Your task to perform on an android device: find snoozed emails in the gmail app Image 0: 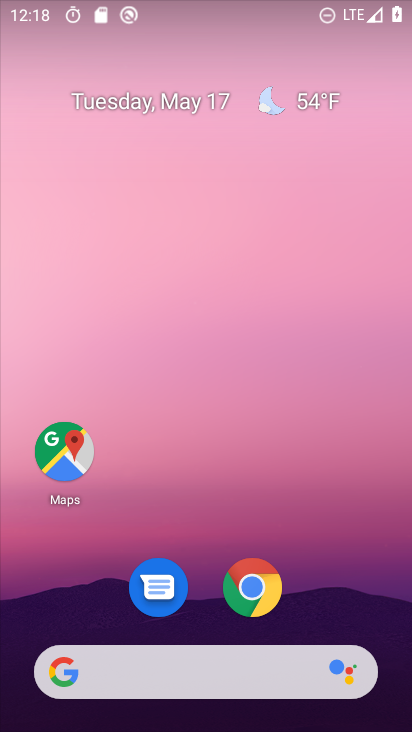
Step 0: drag from (203, 574) to (273, 166)
Your task to perform on an android device: find snoozed emails in the gmail app Image 1: 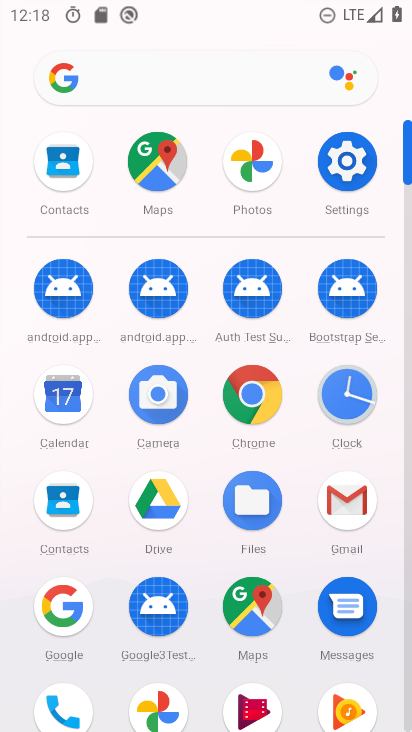
Step 1: click (250, 386)
Your task to perform on an android device: find snoozed emails in the gmail app Image 2: 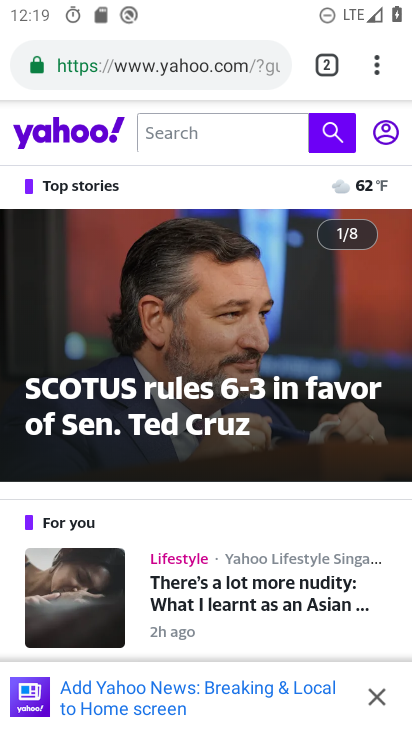
Step 2: drag from (255, 581) to (276, 195)
Your task to perform on an android device: find snoozed emails in the gmail app Image 3: 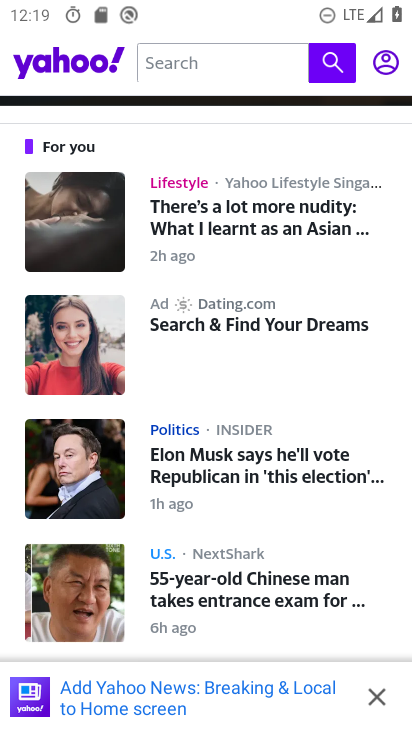
Step 3: drag from (271, 587) to (279, 241)
Your task to perform on an android device: find snoozed emails in the gmail app Image 4: 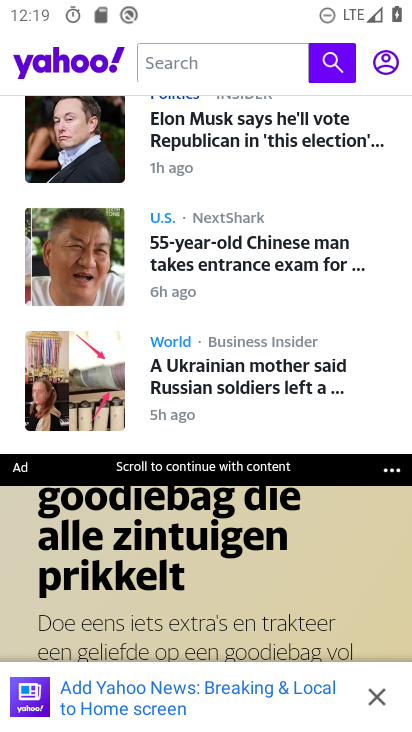
Step 4: drag from (319, 359) to (411, 125)
Your task to perform on an android device: find snoozed emails in the gmail app Image 5: 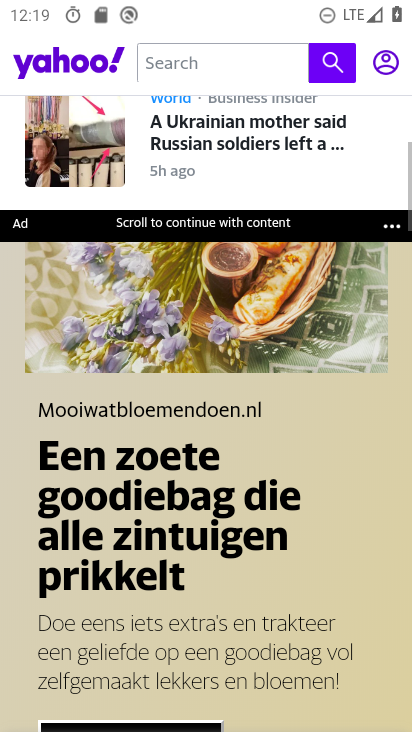
Step 5: click (373, 60)
Your task to perform on an android device: find snoozed emails in the gmail app Image 6: 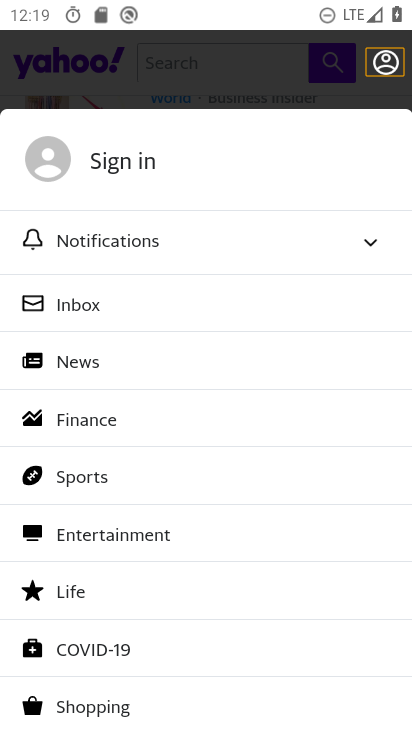
Step 6: click (194, 55)
Your task to perform on an android device: find snoozed emails in the gmail app Image 7: 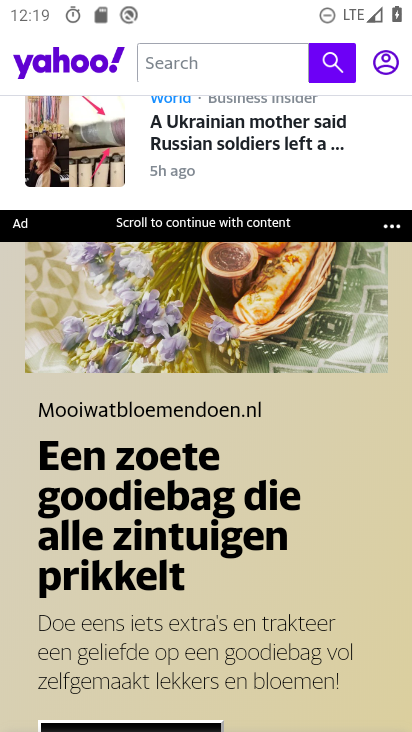
Step 7: drag from (207, 75) to (304, 689)
Your task to perform on an android device: find snoozed emails in the gmail app Image 8: 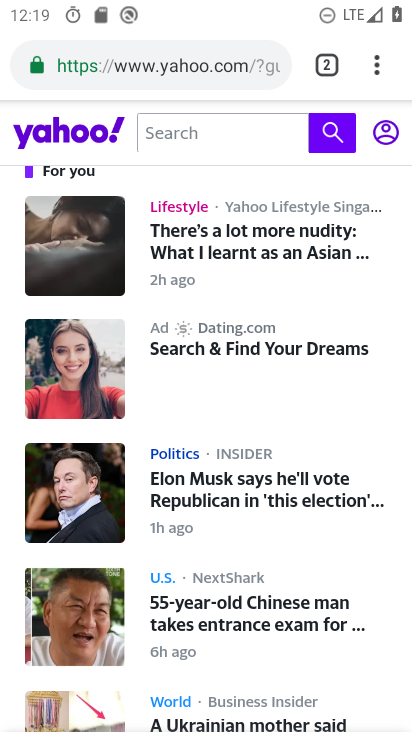
Step 8: click (383, 51)
Your task to perform on an android device: find snoozed emails in the gmail app Image 9: 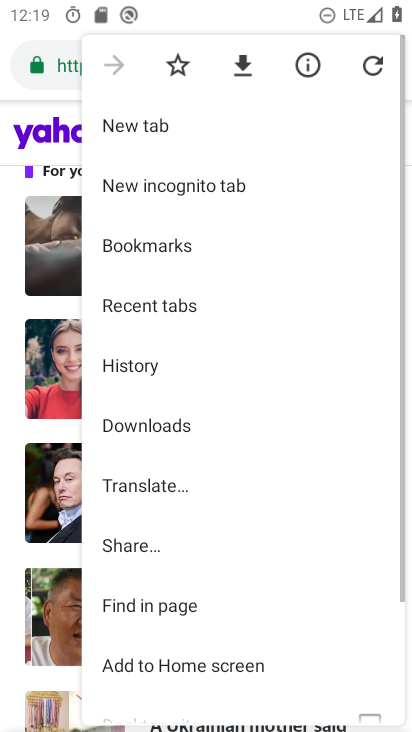
Step 9: drag from (226, 632) to (272, 224)
Your task to perform on an android device: find snoozed emails in the gmail app Image 10: 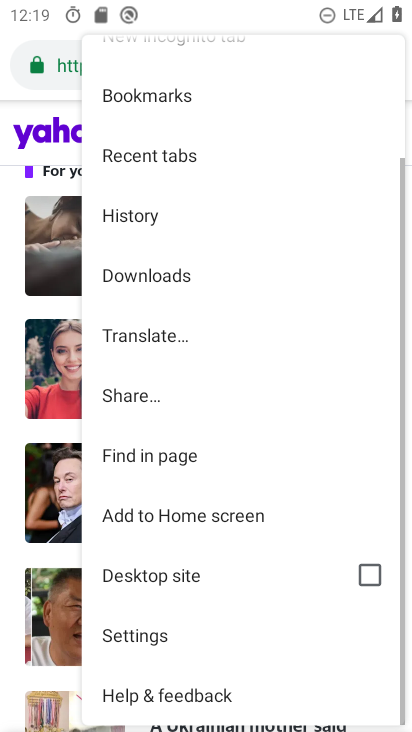
Step 10: click (161, 628)
Your task to perform on an android device: find snoozed emails in the gmail app Image 11: 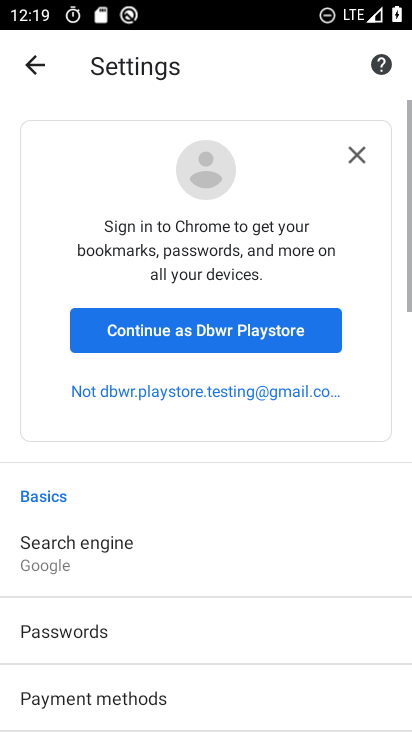
Step 11: drag from (217, 588) to (267, 255)
Your task to perform on an android device: find snoozed emails in the gmail app Image 12: 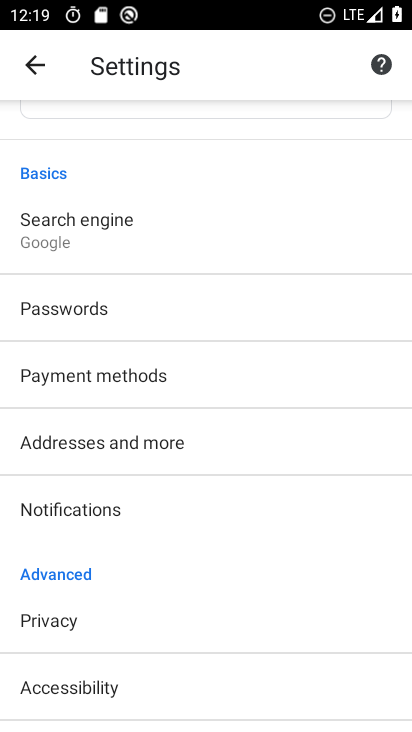
Step 12: drag from (205, 636) to (270, 280)
Your task to perform on an android device: find snoozed emails in the gmail app Image 13: 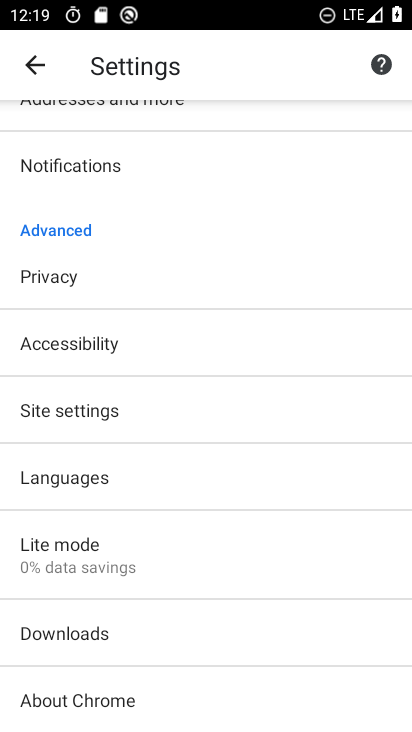
Step 13: drag from (206, 648) to (247, 379)
Your task to perform on an android device: find snoozed emails in the gmail app Image 14: 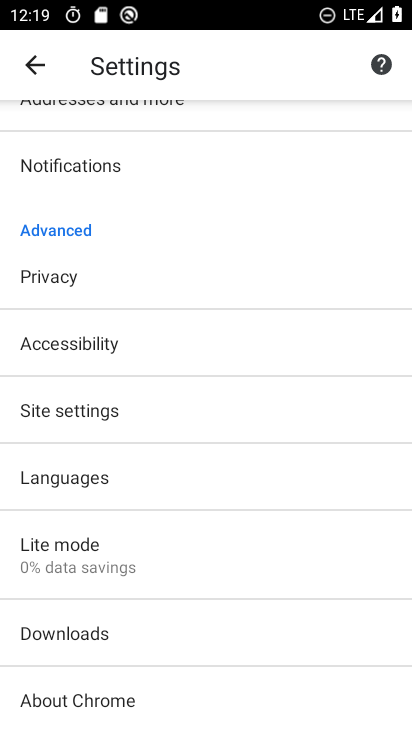
Step 14: click (81, 423)
Your task to perform on an android device: find snoozed emails in the gmail app Image 15: 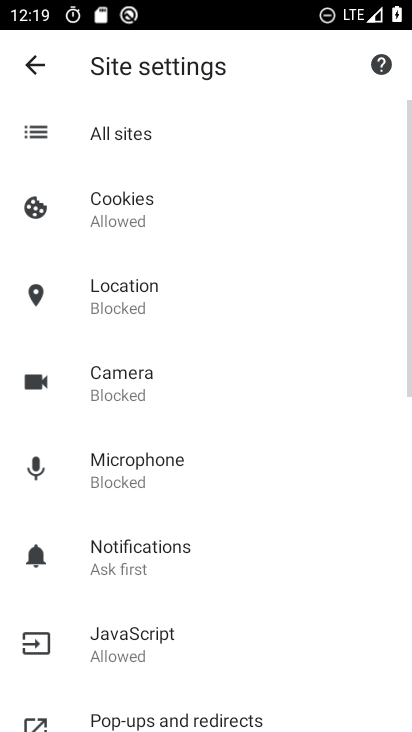
Step 15: drag from (200, 664) to (387, 221)
Your task to perform on an android device: find snoozed emails in the gmail app Image 16: 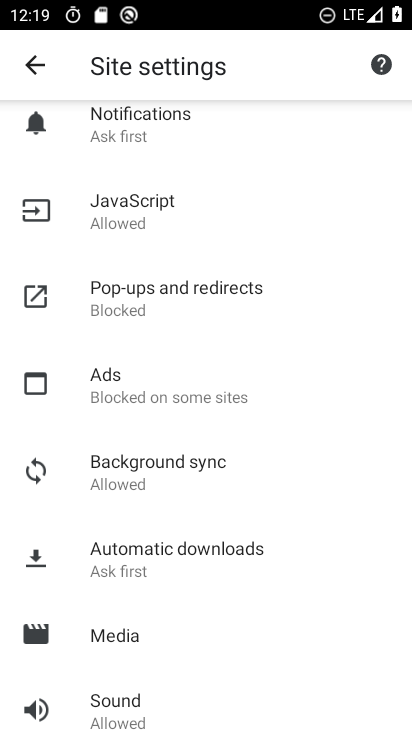
Step 16: drag from (198, 165) to (292, 724)
Your task to perform on an android device: find snoozed emails in the gmail app Image 17: 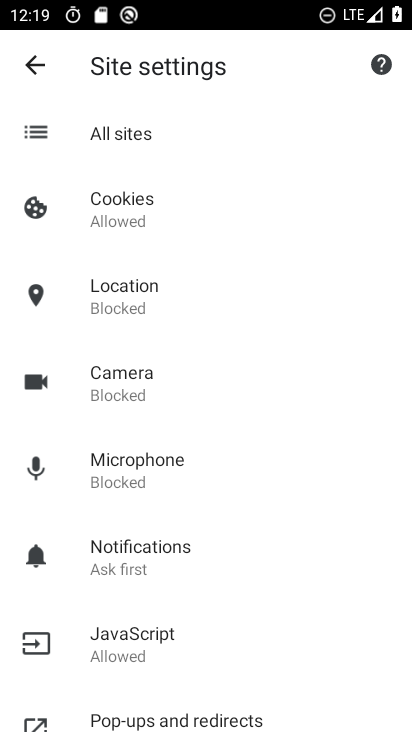
Step 17: drag from (193, 236) to (223, 610)
Your task to perform on an android device: find snoozed emails in the gmail app Image 18: 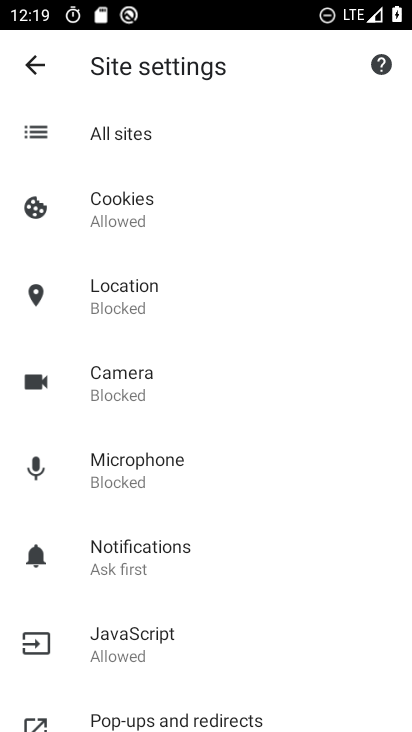
Step 18: drag from (177, 231) to (252, 570)
Your task to perform on an android device: find snoozed emails in the gmail app Image 19: 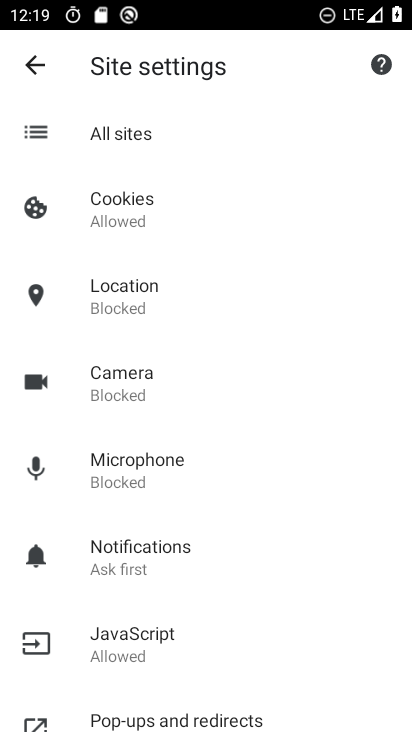
Step 19: click (34, 54)
Your task to perform on an android device: find snoozed emails in the gmail app Image 20: 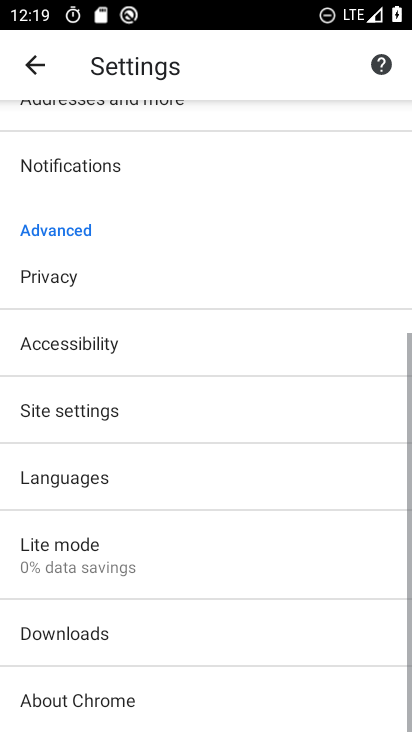
Step 20: press home button
Your task to perform on an android device: find snoozed emails in the gmail app Image 21: 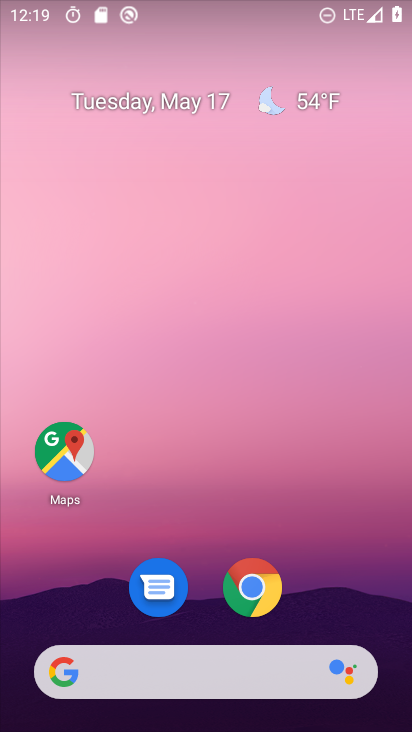
Step 21: drag from (209, 628) to (230, 201)
Your task to perform on an android device: find snoozed emails in the gmail app Image 22: 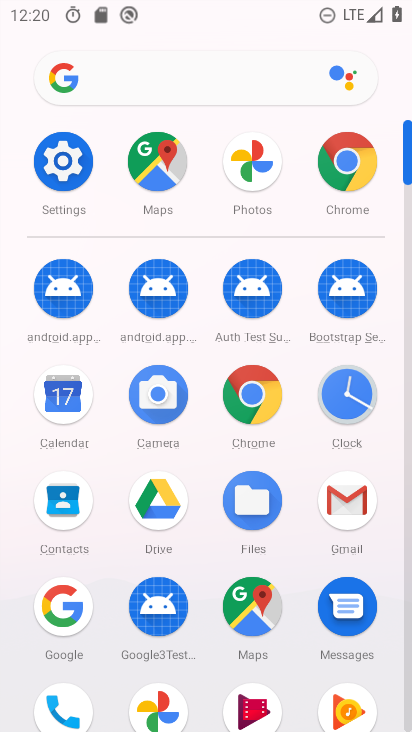
Step 22: click (342, 465)
Your task to perform on an android device: find snoozed emails in the gmail app Image 23: 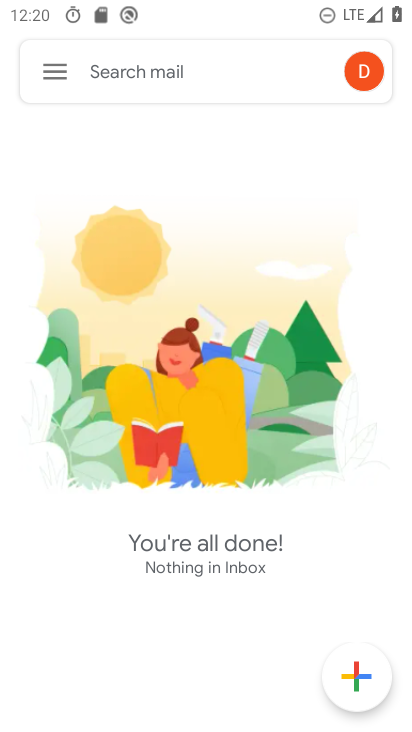
Step 23: click (48, 69)
Your task to perform on an android device: find snoozed emails in the gmail app Image 24: 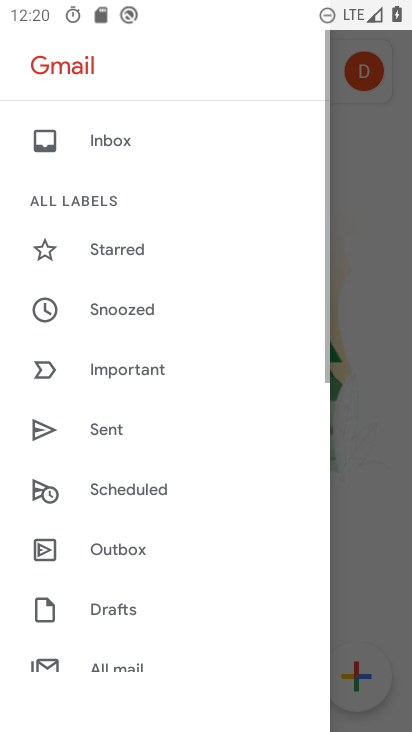
Step 24: drag from (162, 528) to (197, 206)
Your task to perform on an android device: find snoozed emails in the gmail app Image 25: 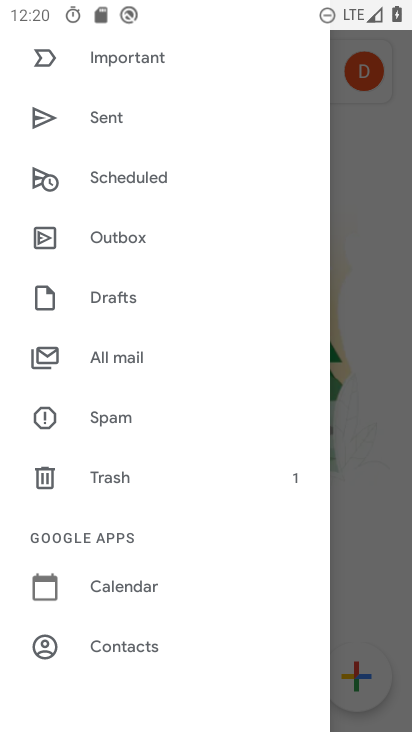
Step 25: drag from (134, 121) to (176, 630)
Your task to perform on an android device: find snoozed emails in the gmail app Image 26: 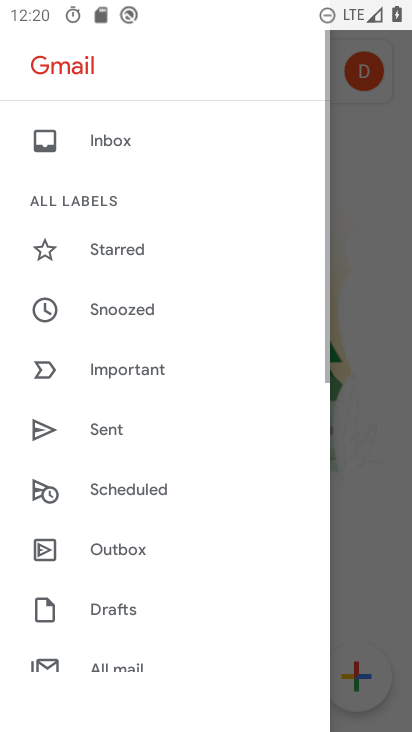
Step 26: click (107, 304)
Your task to perform on an android device: find snoozed emails in the gmail app Image 27: 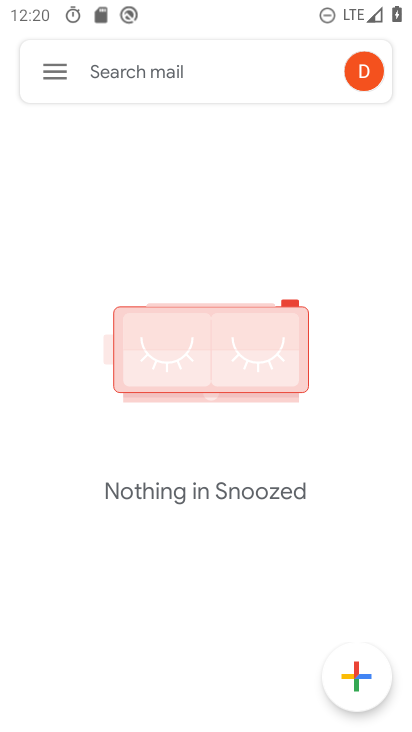
Step 27: drag from (195, 577) to (228, 167)
Your task to perform on an android device: find snoozed emails in the gmail app Image 28: 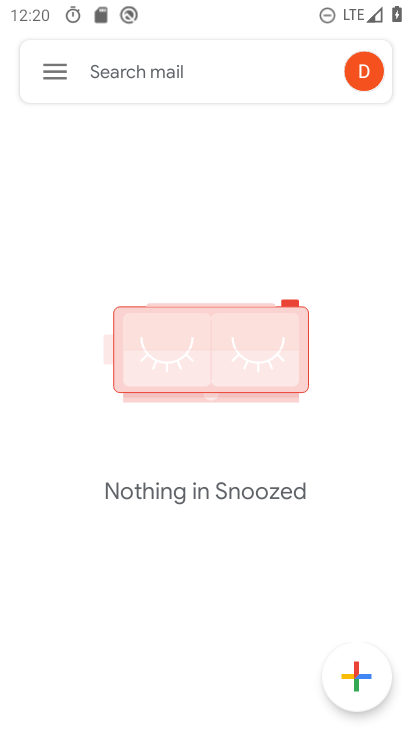
Step 28: drag from (221, 597) to (237, 279)
Your task to perform on an android device: find snoozed emails in the gmail app Image 29: 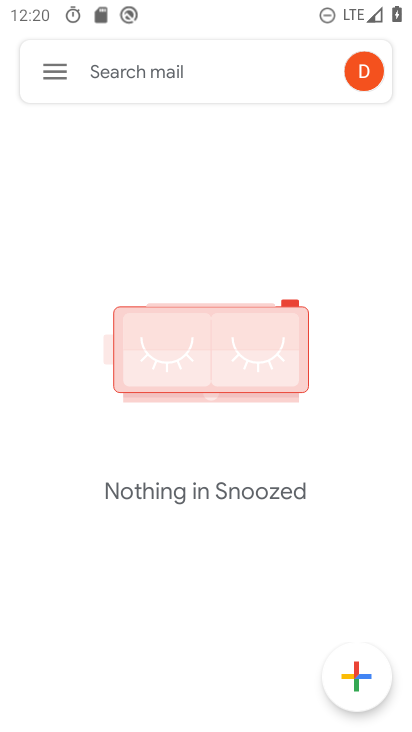
Step 29: drag from (244, 638) to (262, 157)
Your task to perform on an android device: find snoozed emails in the gmail app Image 30: 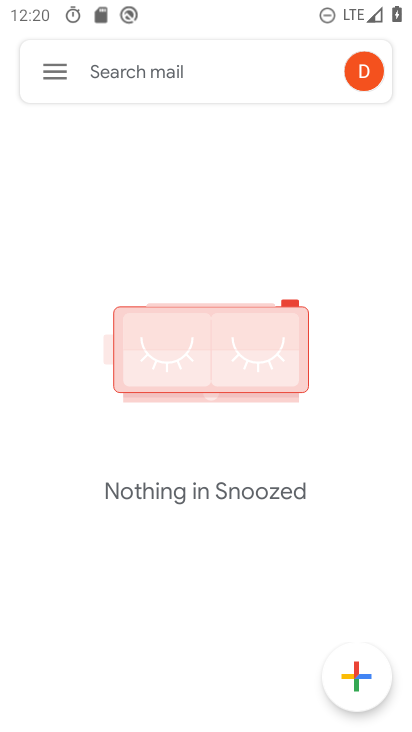
Step 30: drag from (331, 495) to (219, 184)
Your task to perform on an android device: find snoozed emails in the gmail app Image 31: 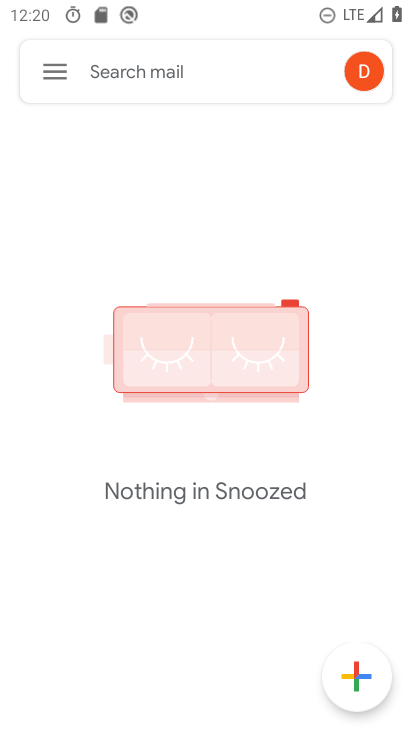
Step 31: drag from (247, 606) to (267, 323)
Your task to perform on an android device: find snoozed emails in the gmail app Image 32: 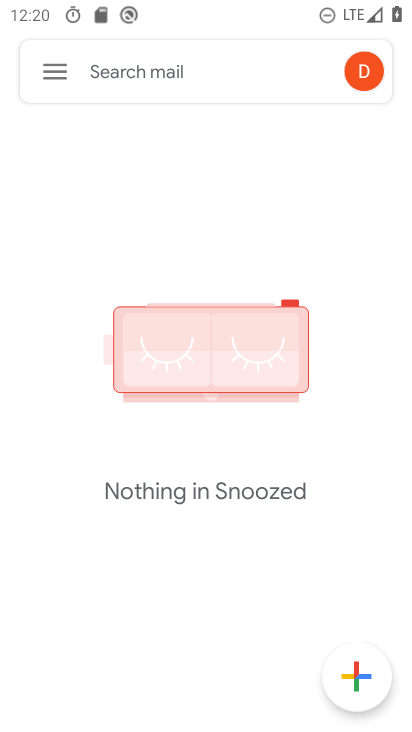
Step 32: click (50, 84)
Your task to perform on an android device: find snoozed emails in the gmail app Image 33: 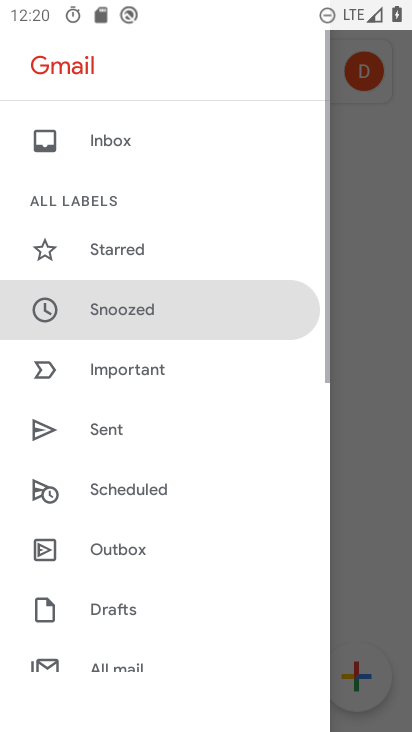
Step 33: click (137, 327)
Your task to perform on an android device: find snoozed emails in the gmail app Image 34: 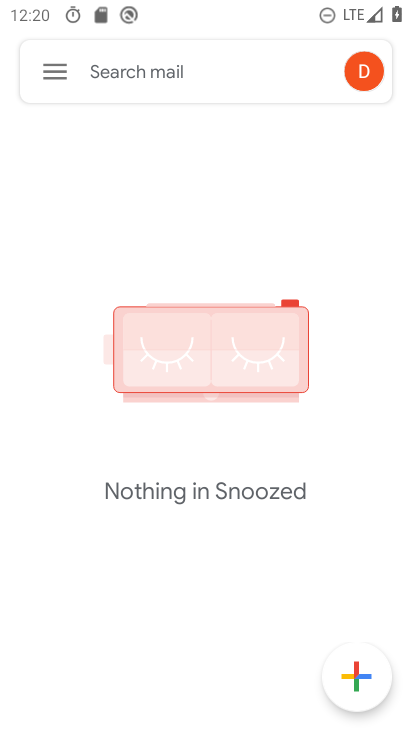
Step 34: click (317, 309)
Your task to perform on an android device: find snoozed emails in the gmail app Image 35: 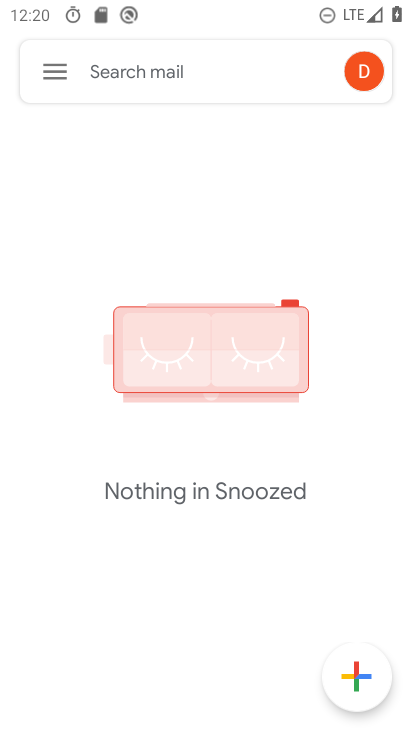
Step 35: task complete